Your task to perform on an android device: Is it going to rain today? Image 0: 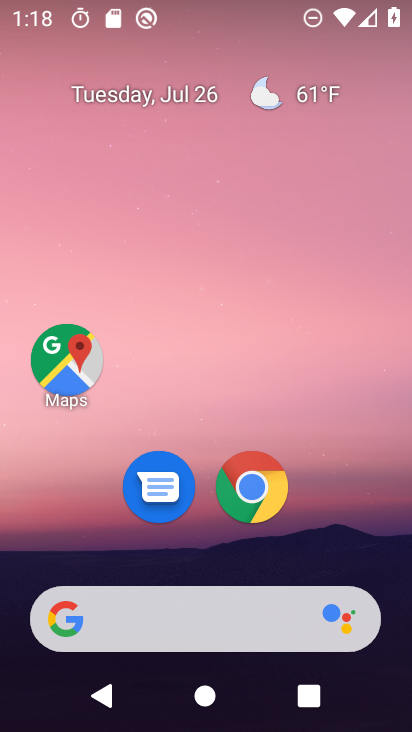
Step 0: drag from (156, 597) to (222, 32)
Your task to perform on an android device: Is it going to rain today? Image 1: 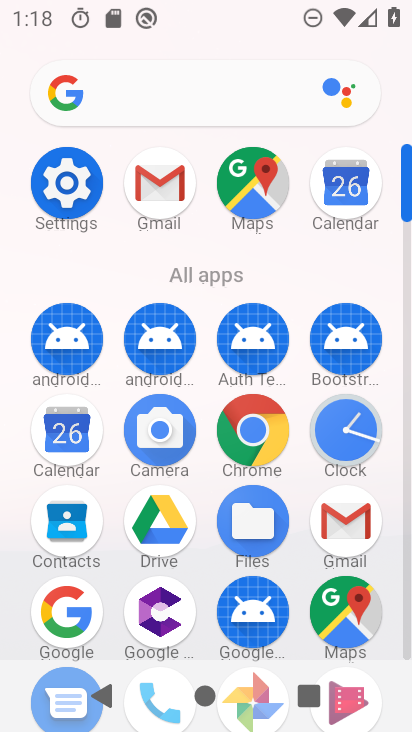
Step 1: click (165, 96)
Your task to perform on an android device: Is it going to rain today? Image 2: 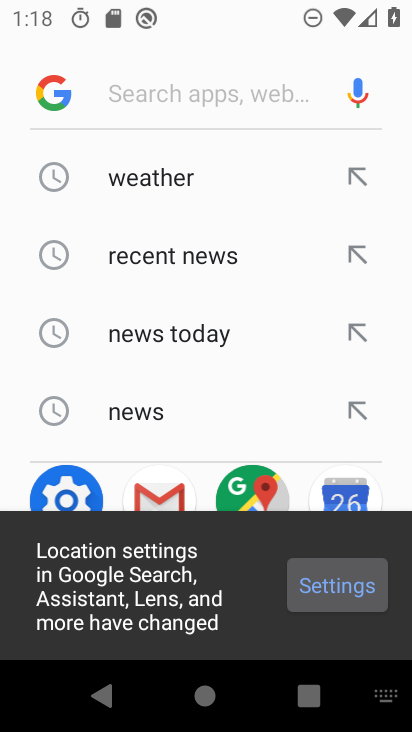
Step 2: click (135, 168)
Your task to perform on an android device: Is it going to rain today? Image 3: 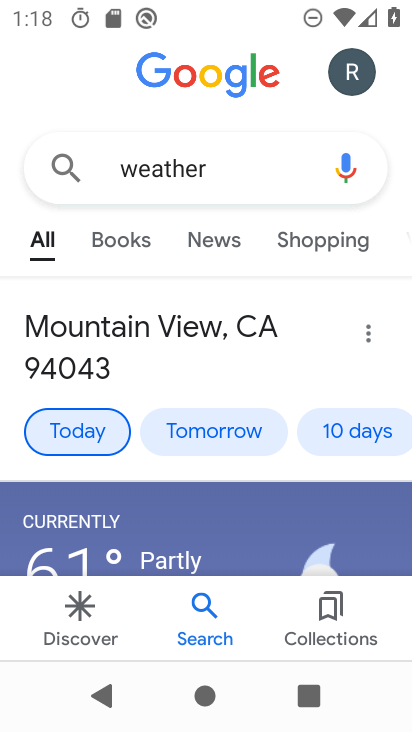
Step 3: task complete